Your task to perform on an android device: check battery use Image 0: 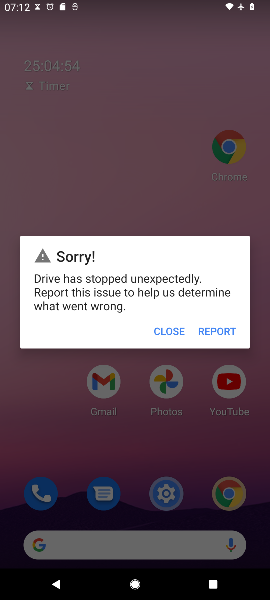
Step 0: press home button
Your task to perform on an android device: check battery use Image 1: 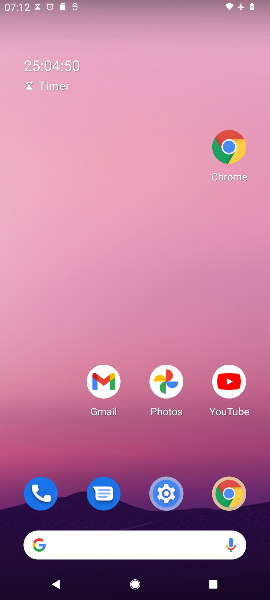
Step 1: click (164, 492)
Your task to perform on an android device: check battery use Image 2: 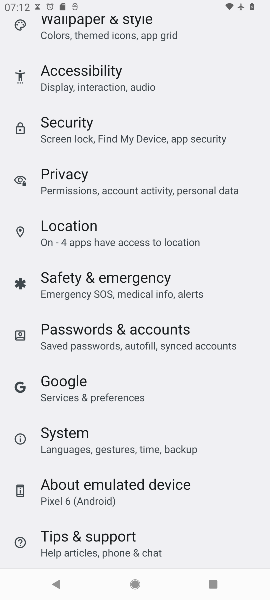
Step 2: drag from (124, 108) to (147, 526)
Your task to perform on an android device: check battery use Image 3: 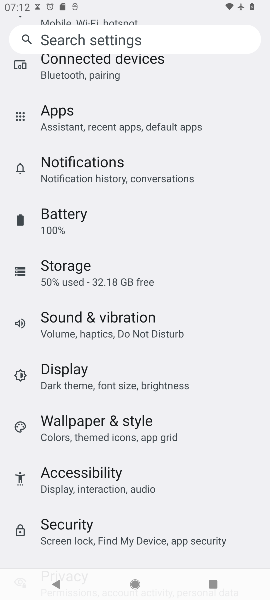
Step 3: click (71, 229)
Your task to perform on an android device: check battery use Image 4: 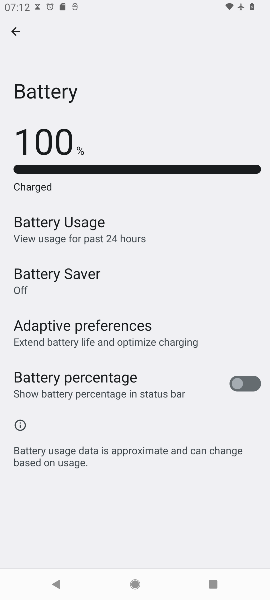
Step 4: task complete